Your task to perform on an android device: open app "Facebook" (install if not already installed) Image 0: 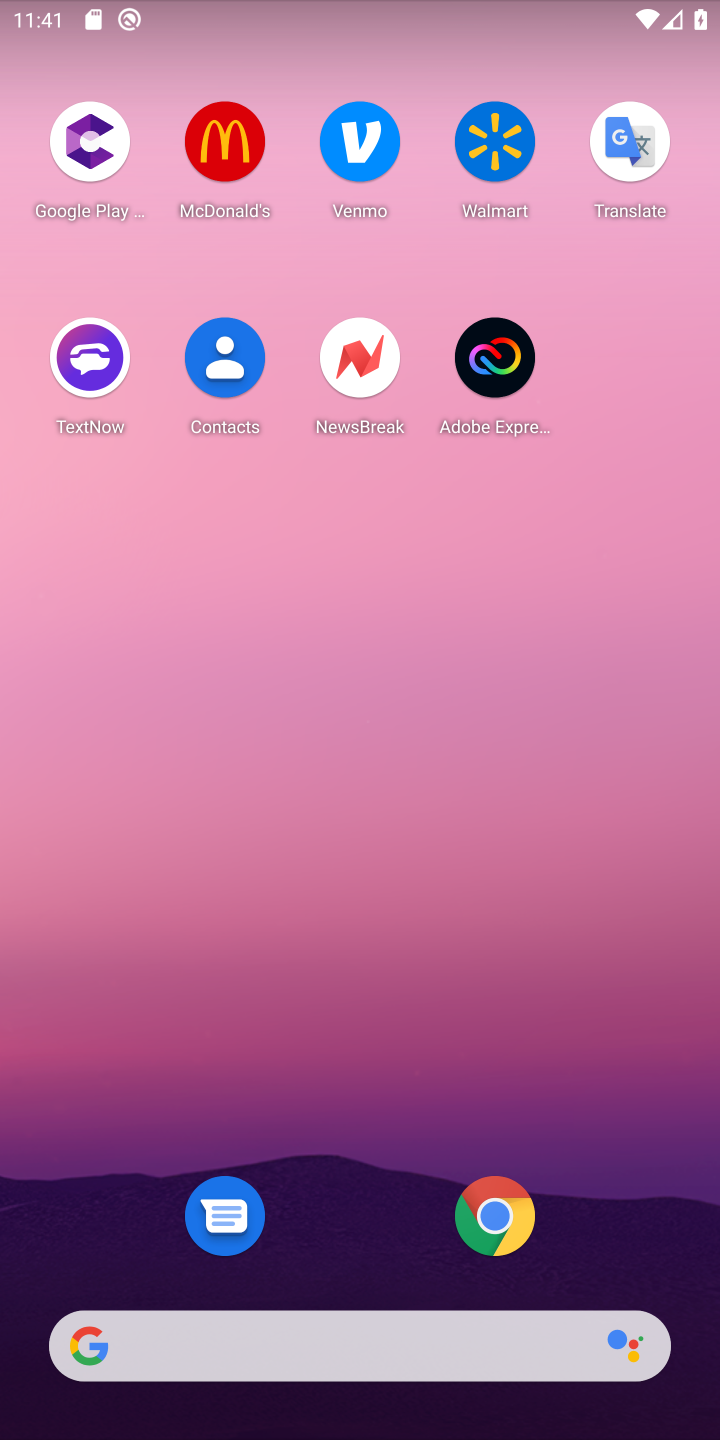
Step 0: drag from (568, 1153) to (424, 322)
Your task to perform on an android device: open app "Facebook" (install if not already installed) Image 1: 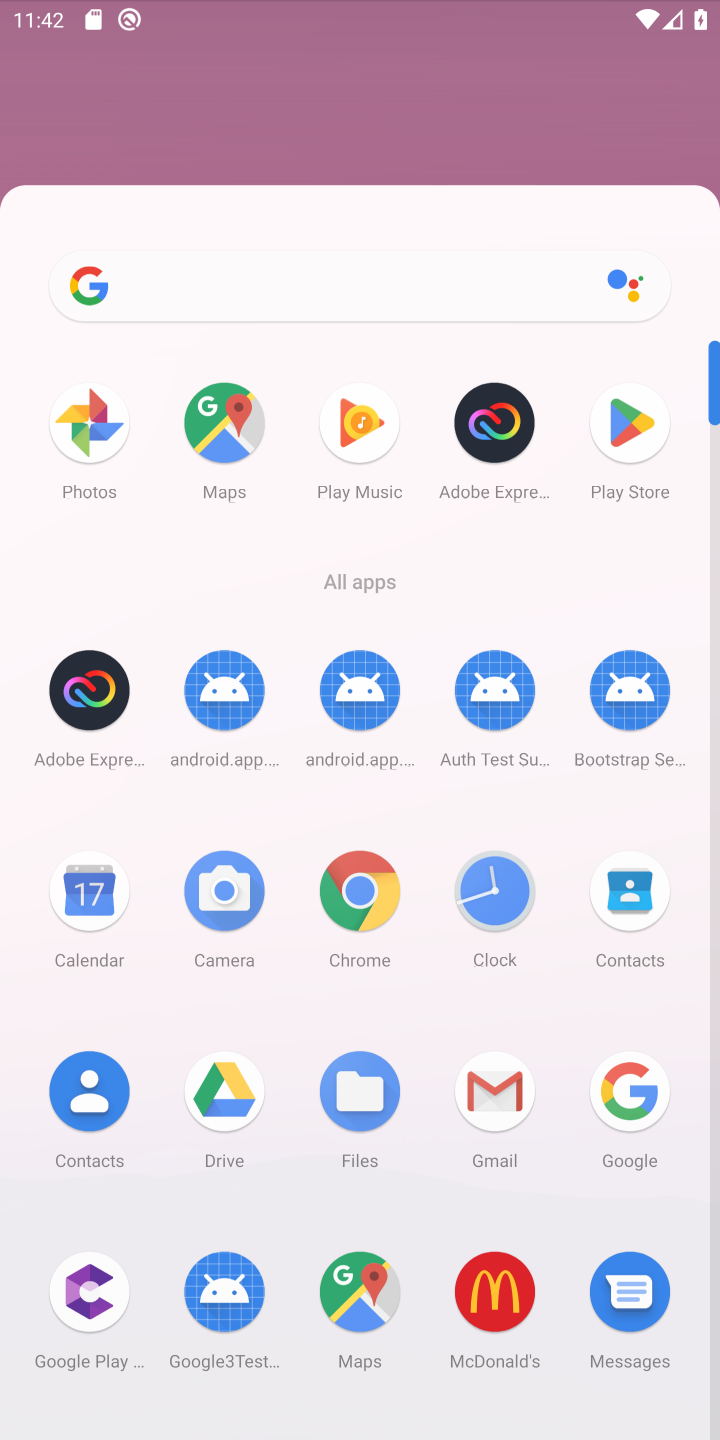
Step 1: click (405, 325)
Your task to perform on an android device: open app "Facebook" (install if not already installed) Image 2: 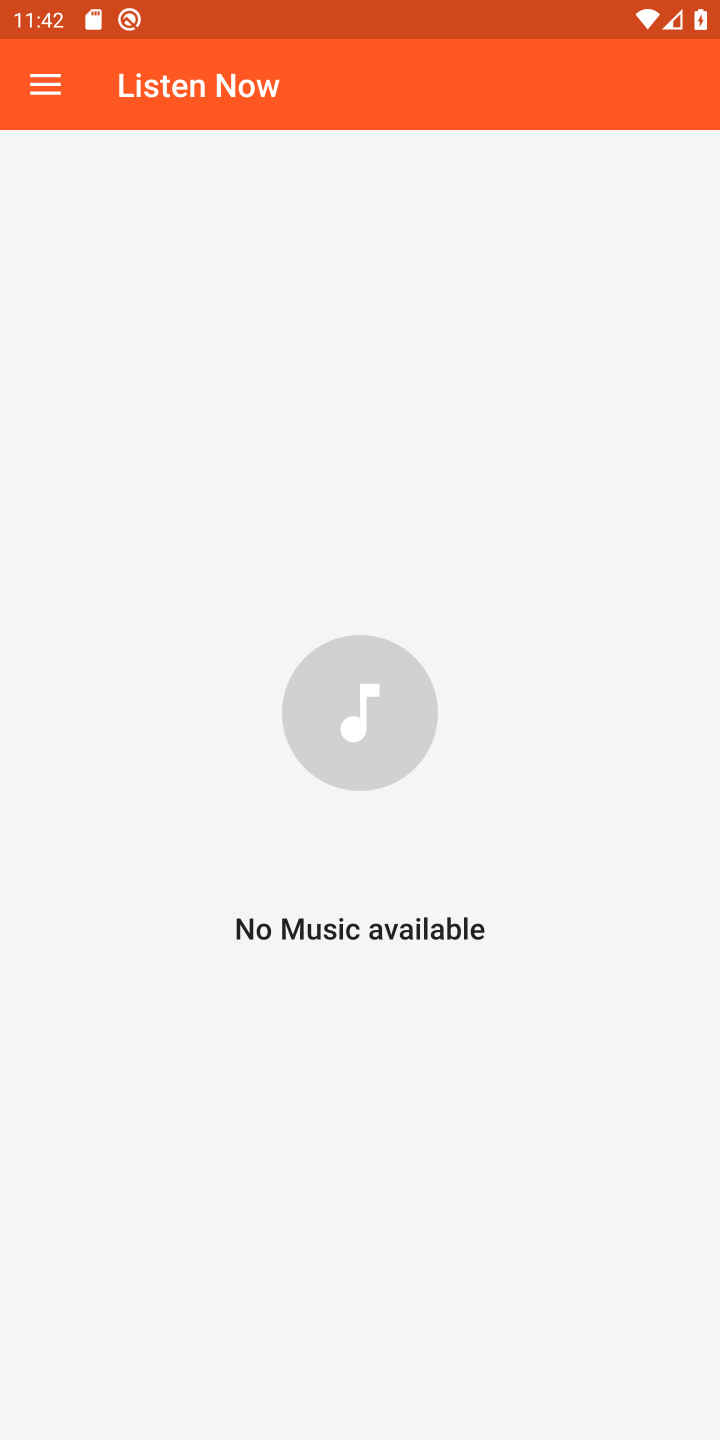
Step 2: press home button
Your task to perform on an android device: open app "Facebook" (install if not already installed) Image 3: 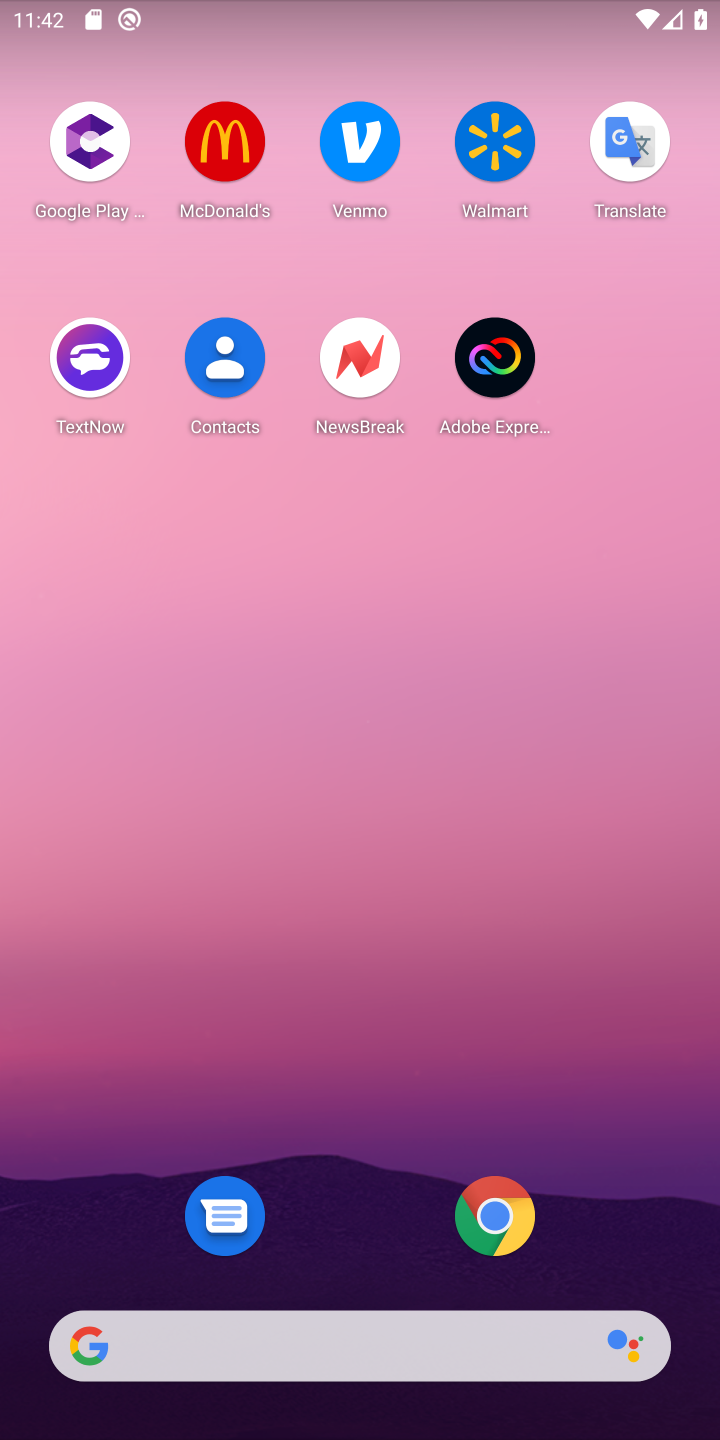
Step 3: drag from (637, 1216) to (490, 130)
Your task to perform on an android device: open app "Facebook" (install if not already installed) Image 4: 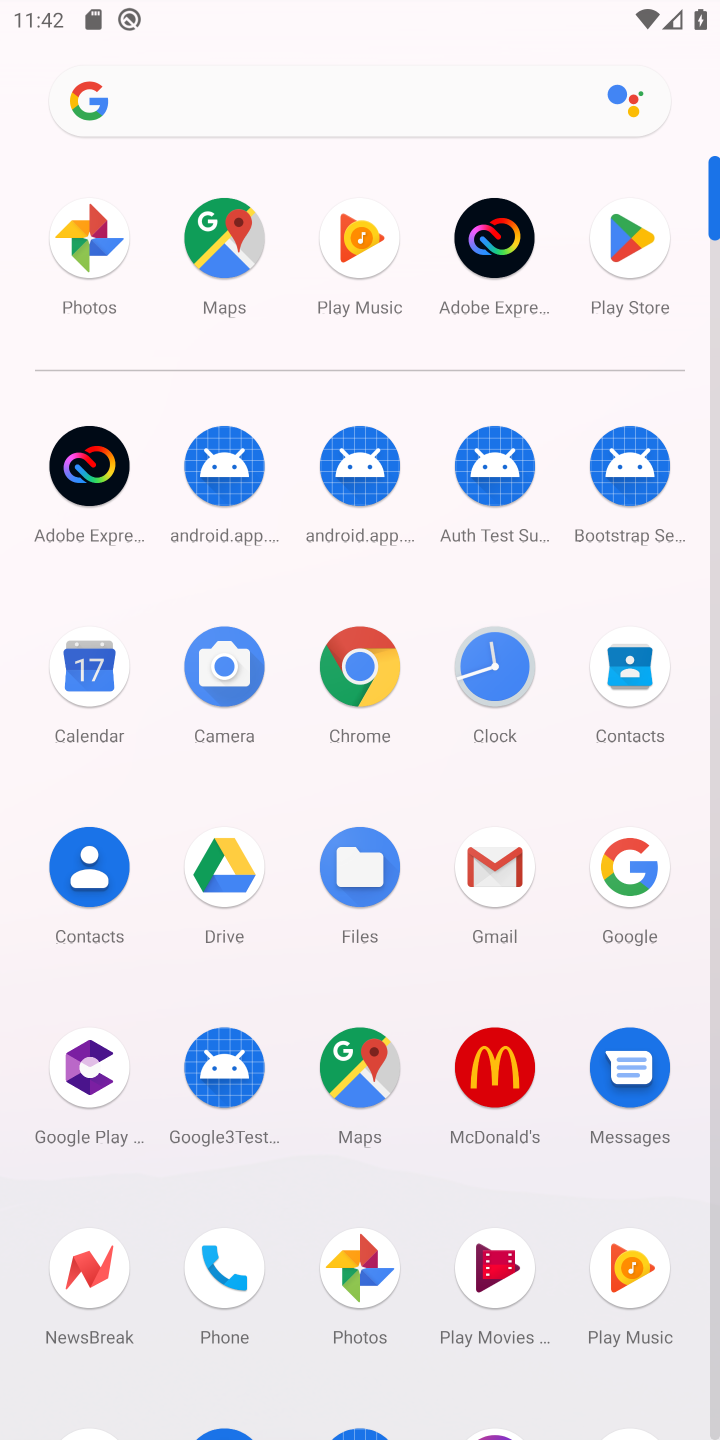
Step 4: drag from (428, 1220) to (372, 955)
Your task to perform on an android device: open app "Facebook" (install if not already installed) Image 5: 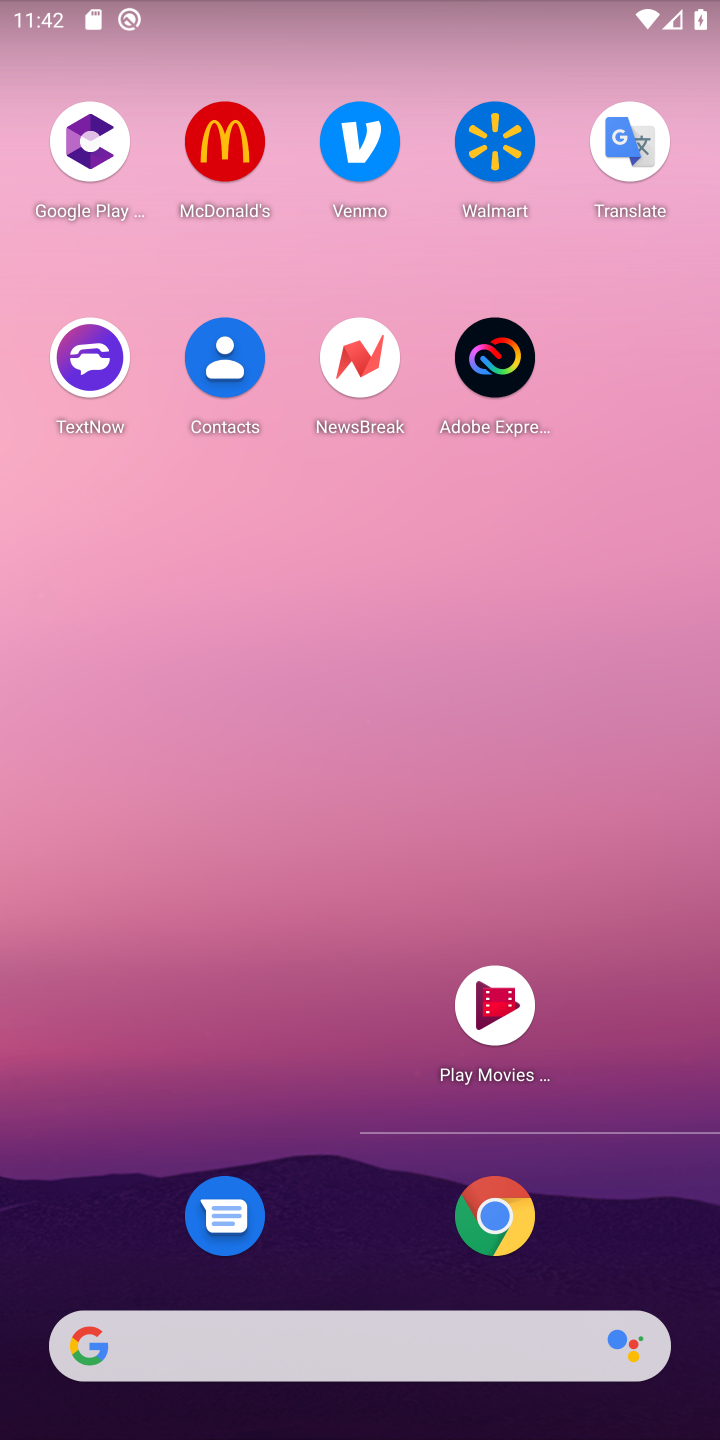
Step 5: drag from (586, 969) to (483, 6)
Your task to perform on an android device: open app "Facebook" (install if not already installed) Image 6: 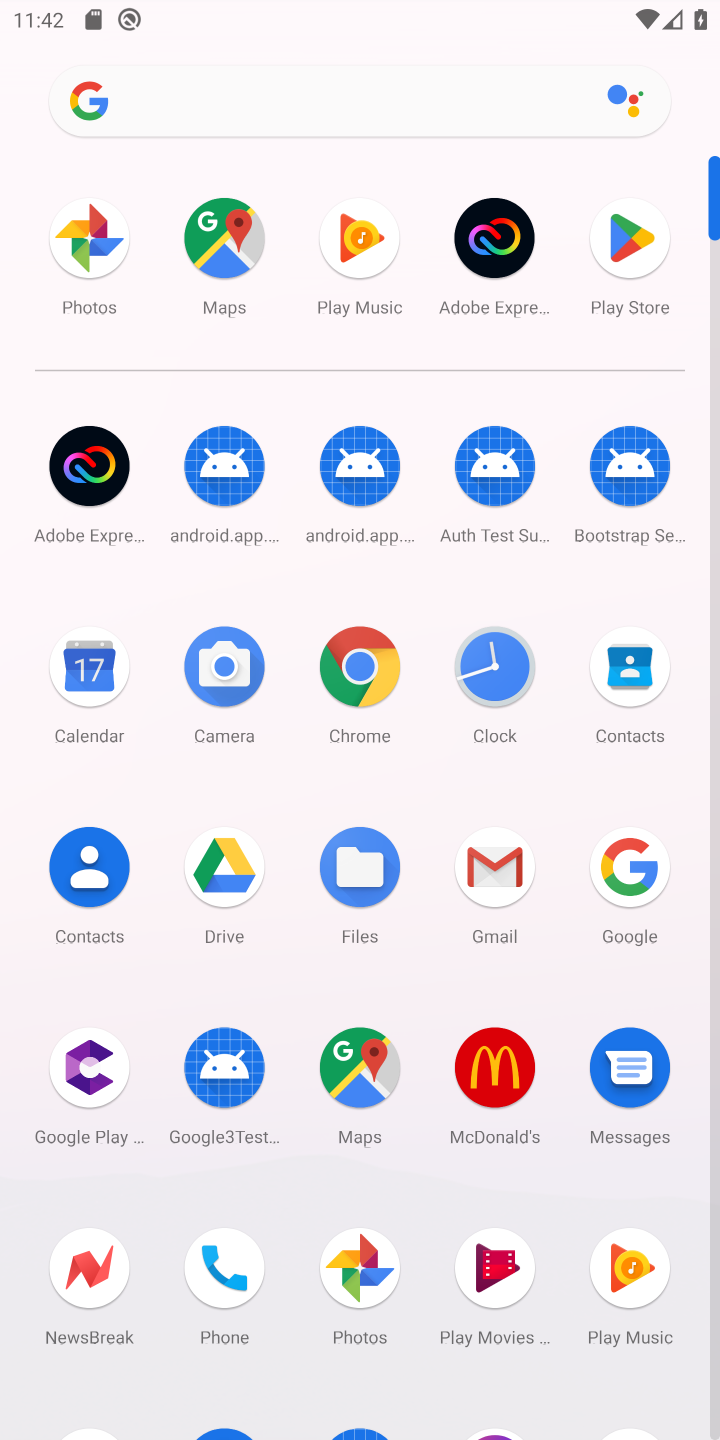
Step 6: drag from (536, 381) to (460, 133)
Your task to perform on an android device: open app "Facebook" (install if not already installed) Image 7: 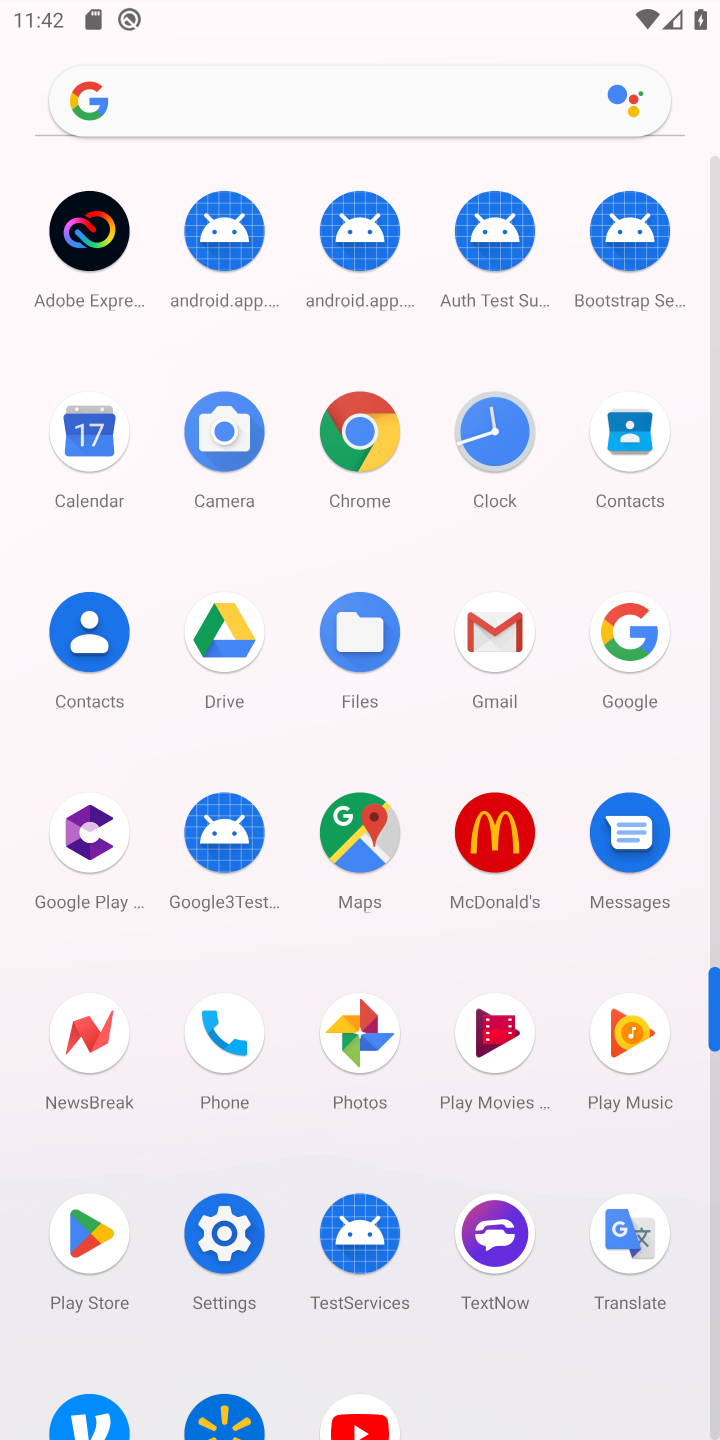
Step 7: click (97, 1243)
Your task to perform on an android device: open app "Facebook" (install if not already installed) Image 8: 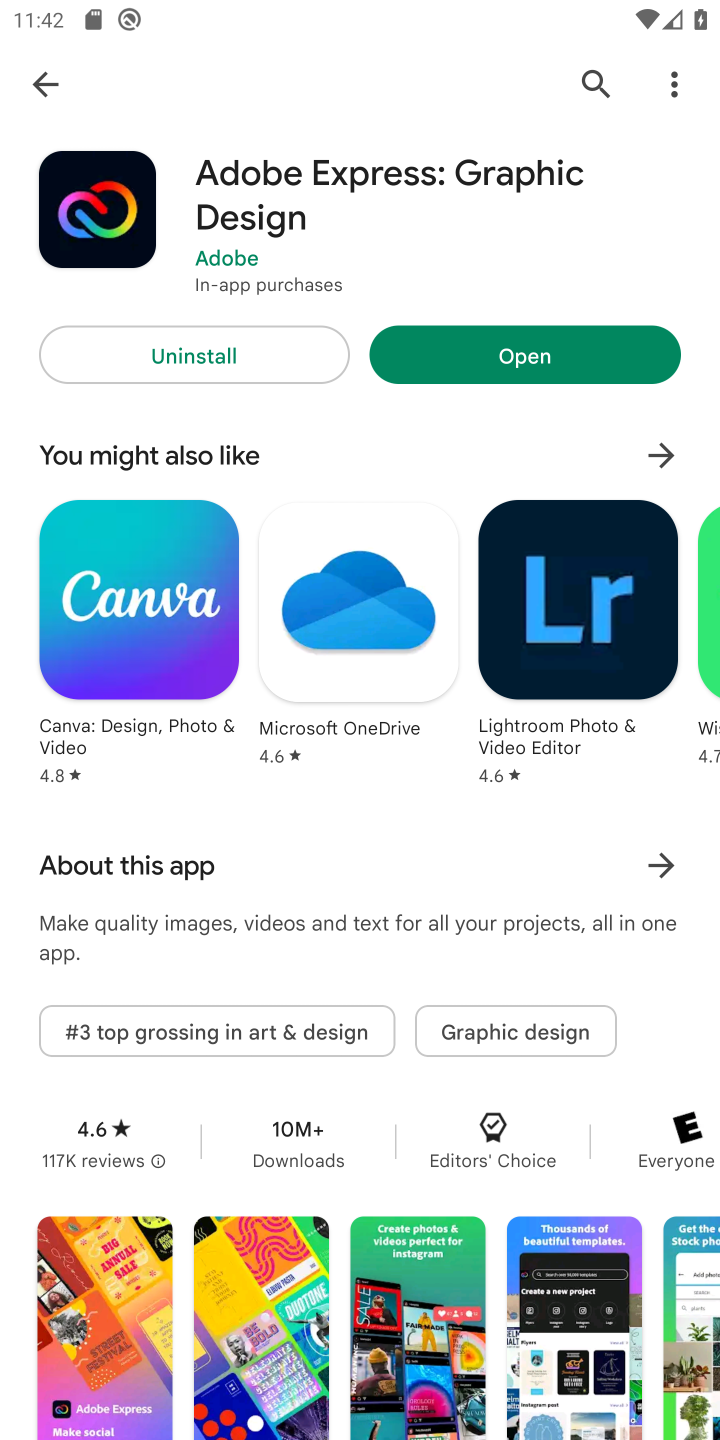
Step 8: click (587, 64)
Your task to perform on an android device: open app "Facebook" (install if not already installed) Image 9: 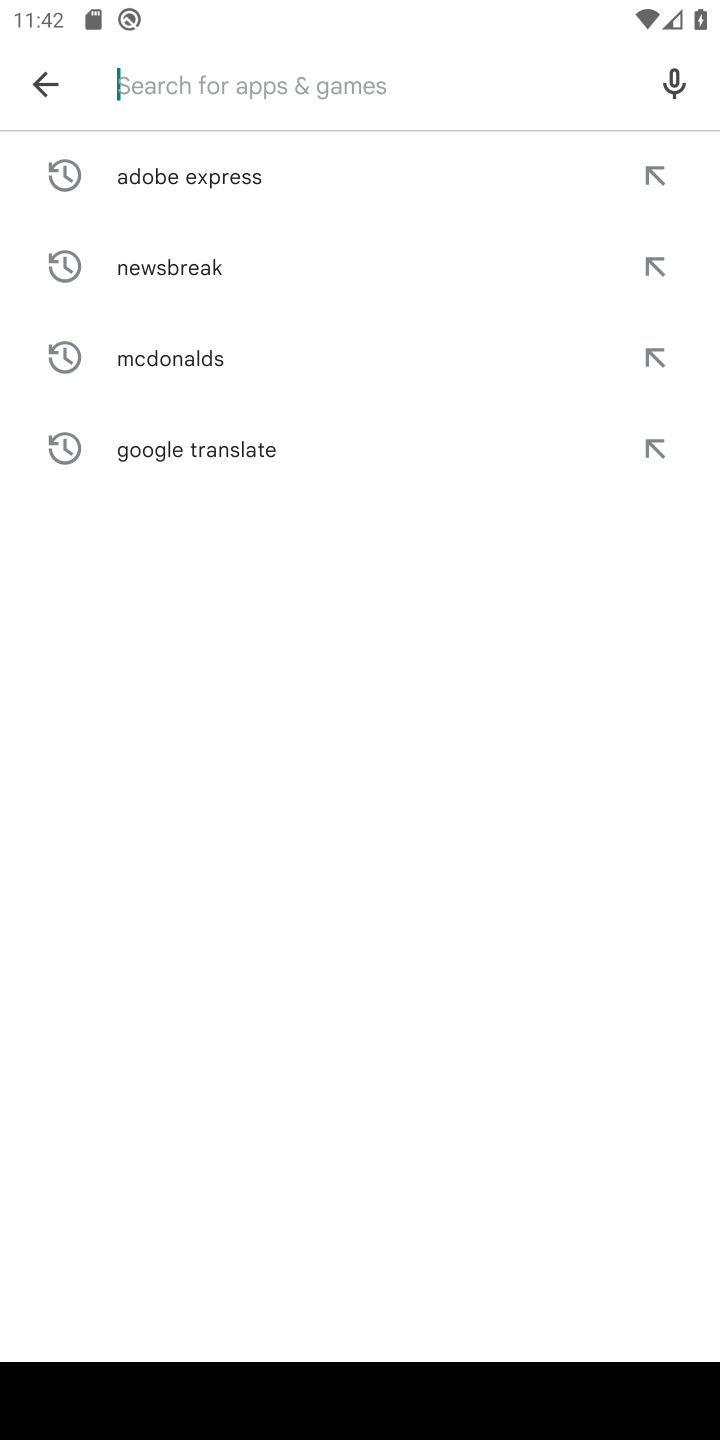
Step 9: type "facebook"
Your task to perform on an android device: open app "Facebook" (install if not already installed) Image 10: 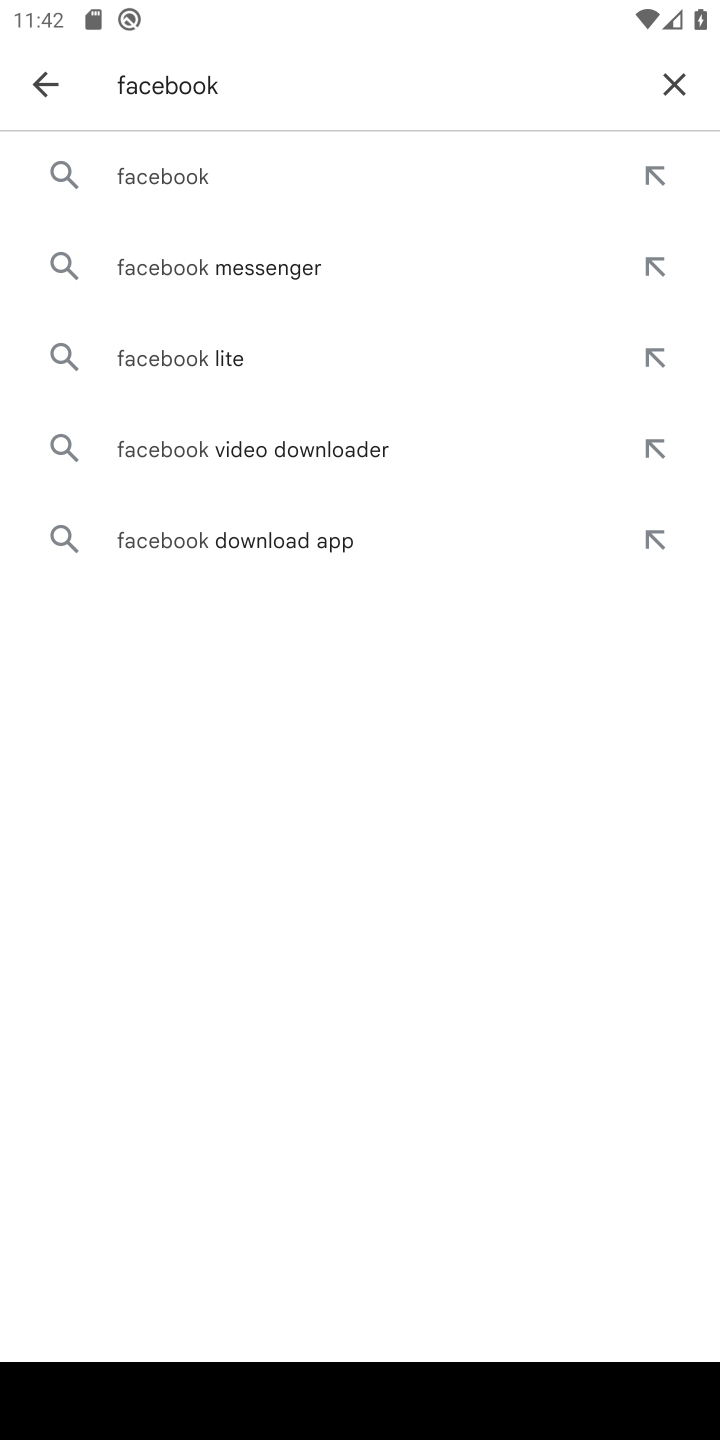
Step 10: click (165, 184)
Your task to perform on an android device: open app "Facebook" (install if not already installed) Image 11: 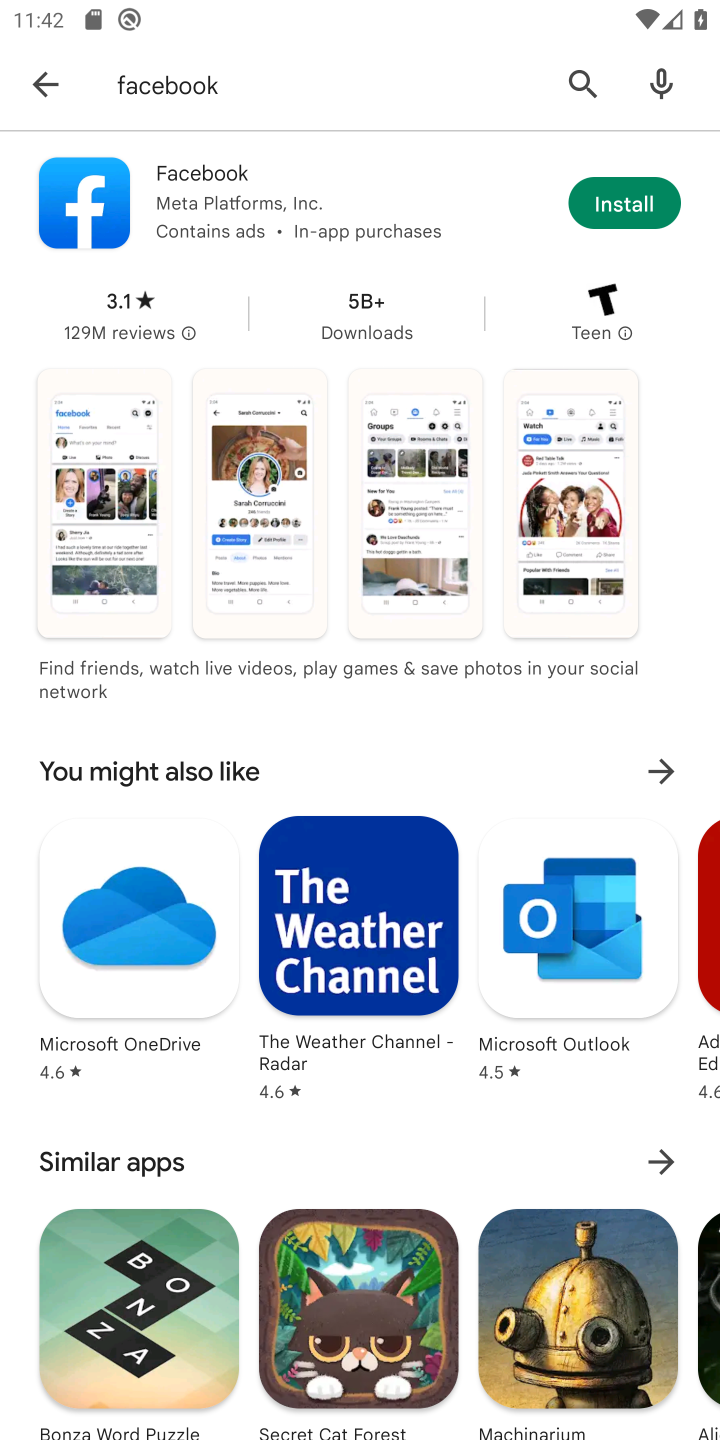
Step 11: click (613, 200)
Your task to perform on an android device: open app "Facebook" (install if not already installed) Image 12: 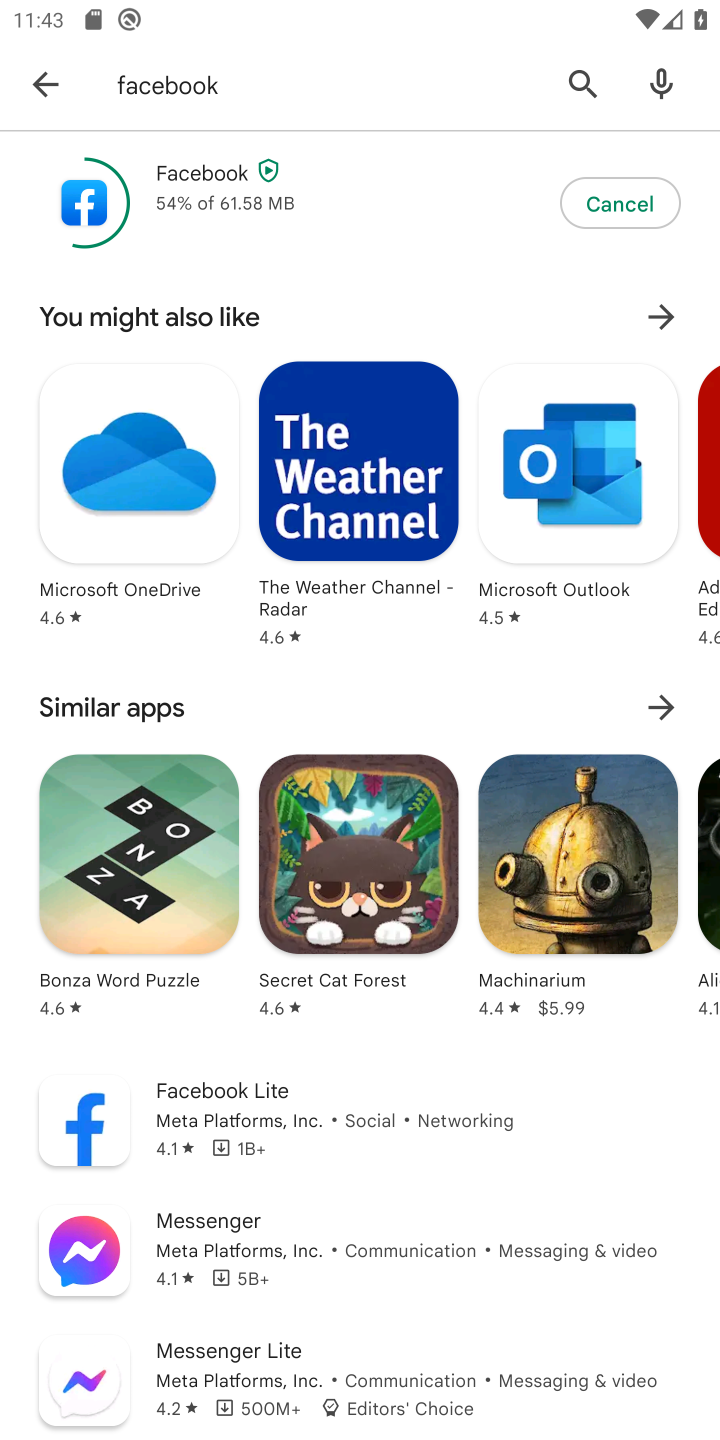
Step 12: click (333, 191)
Your task to perform on an android device: open app "Facebook" (install if not already installed) Image 13: 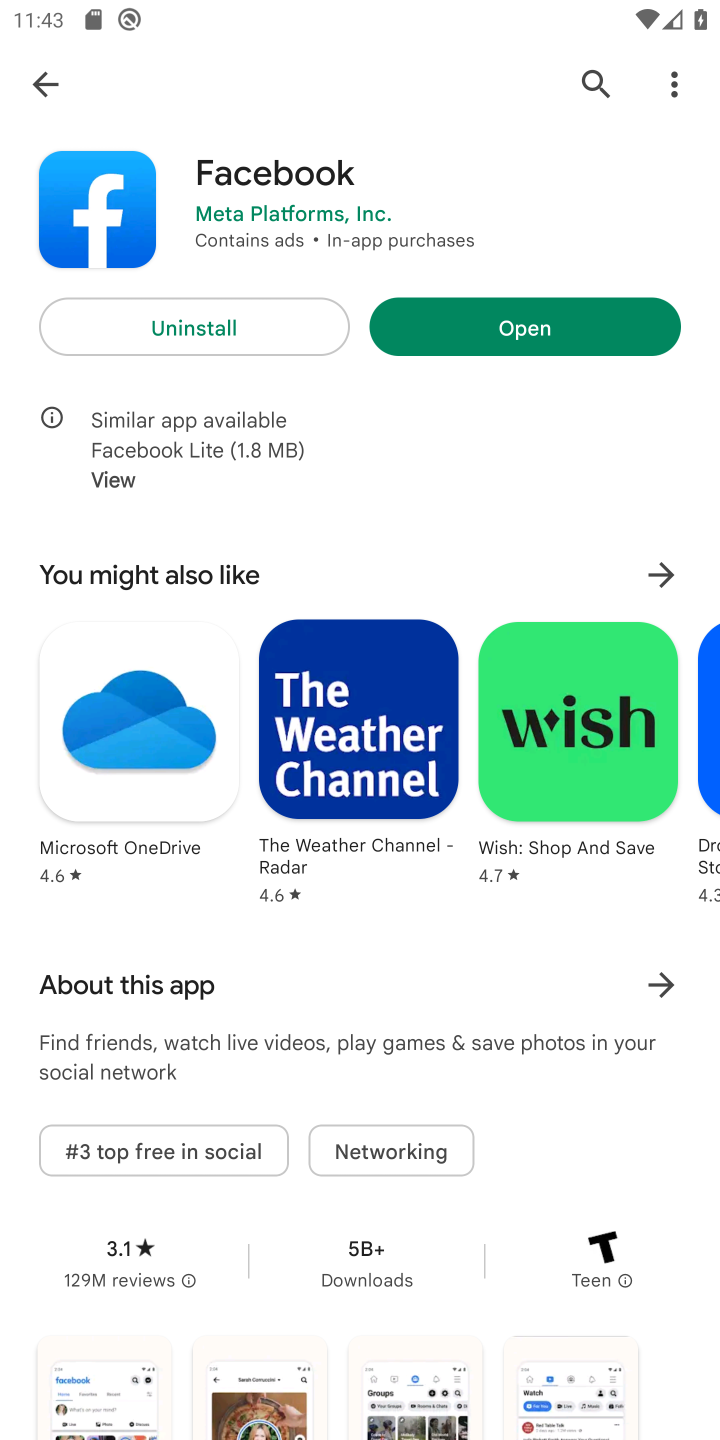
Step 13: click (451, 310)
Your task to perform on an android device: open app "Facebook" (install if not already installed) Image 14: 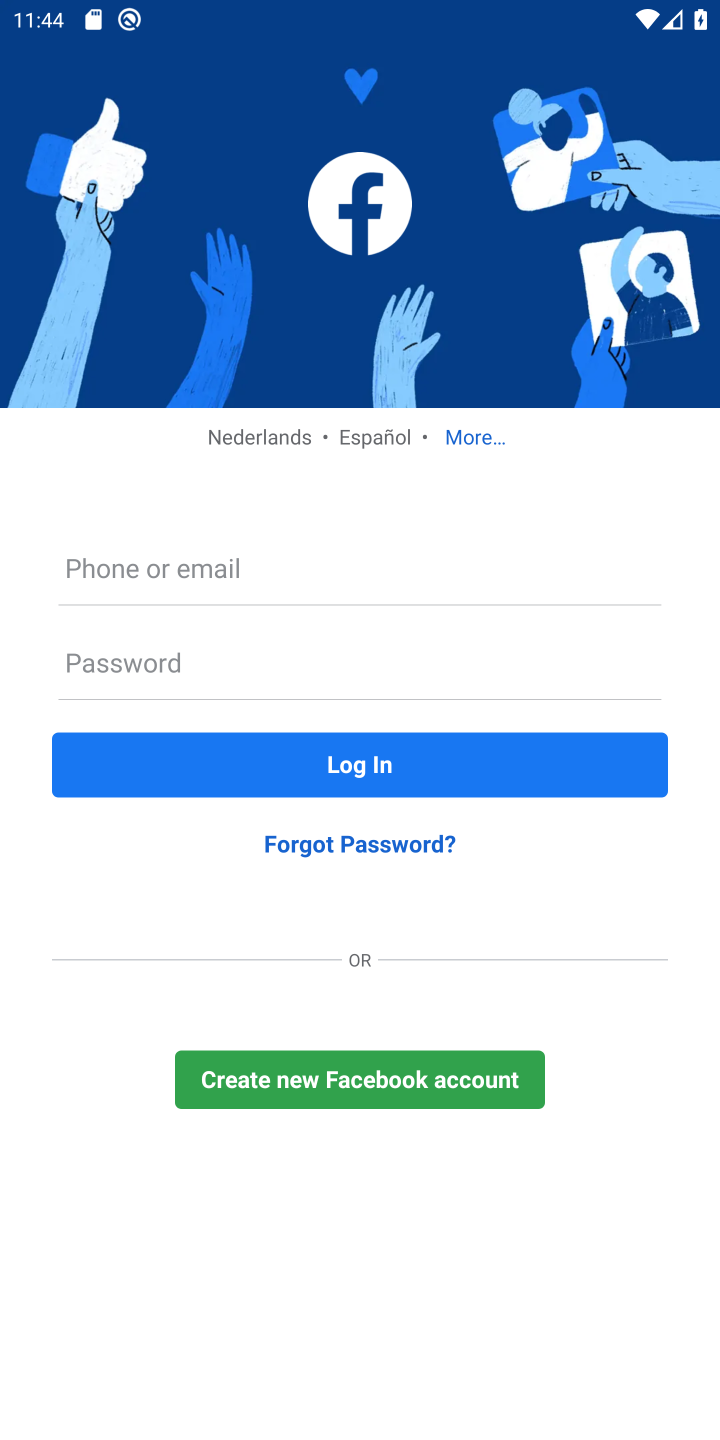
Step 14: task complete